Your task to perform on an android device: turn on airplane mode Image 0: 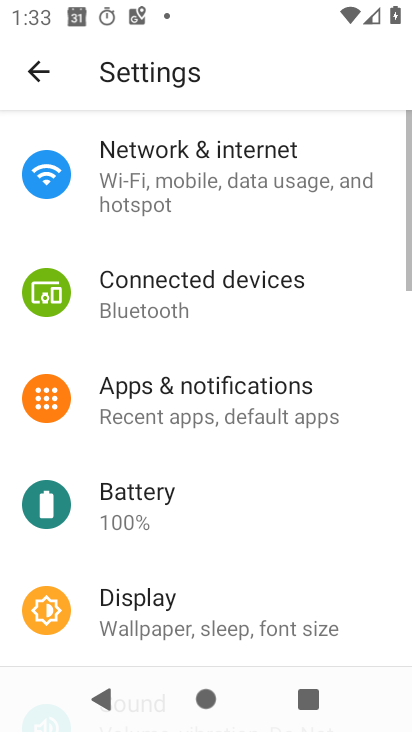
Step 0: click (233, 195)
Your task to perform on an android device: turn on airplane mode Image 1: 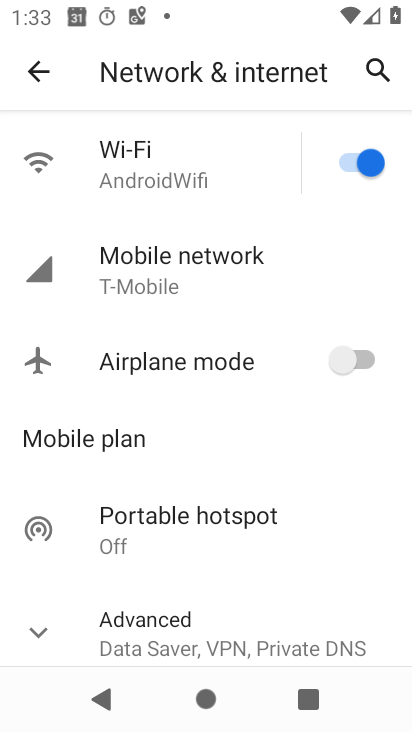
Step 1: click (348, 358)
Your task to perform on an android device: turn on airplane mode Image 2: 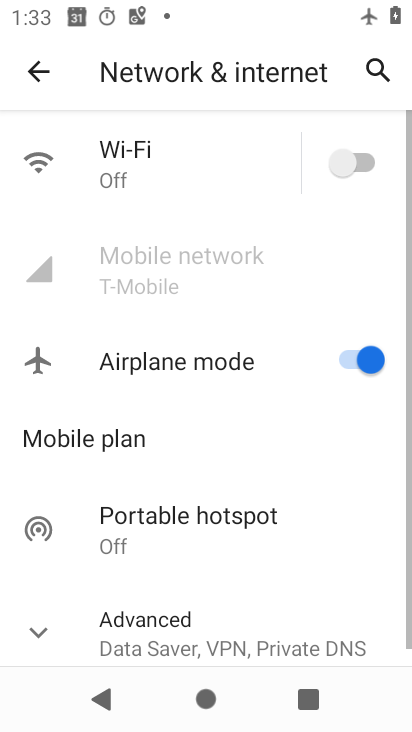
Step 2: task complete